Your task to perform on an android device: Open the calendar app, open the side menu, and click the "Day" option Image 0: 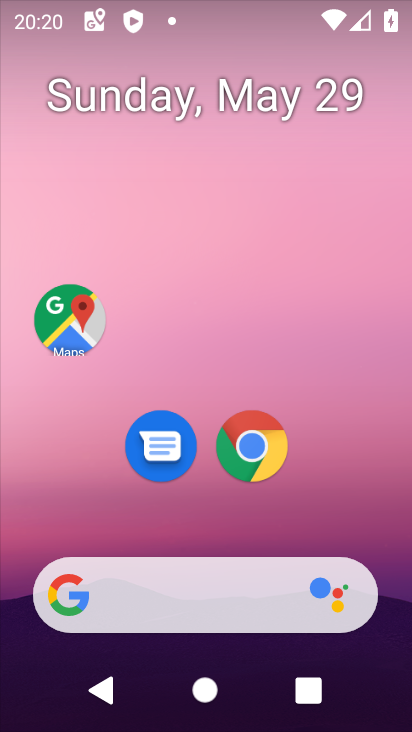
Step 0: drag from (188, 552) to (237, 72)
Your task to perform on an android device: Open the calendar app, open the side menu, and click the "Day" option Image 1: 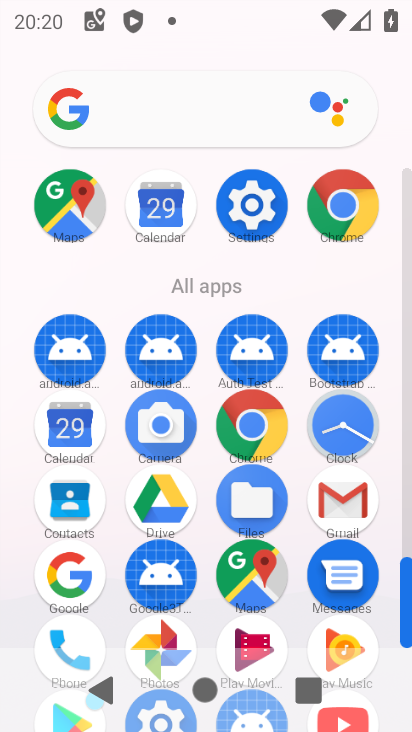
Step 1: click (74, 441)
Your task to perform on an android device: Open the calendar app, open the side menu, and click the "Day" option Image 2: 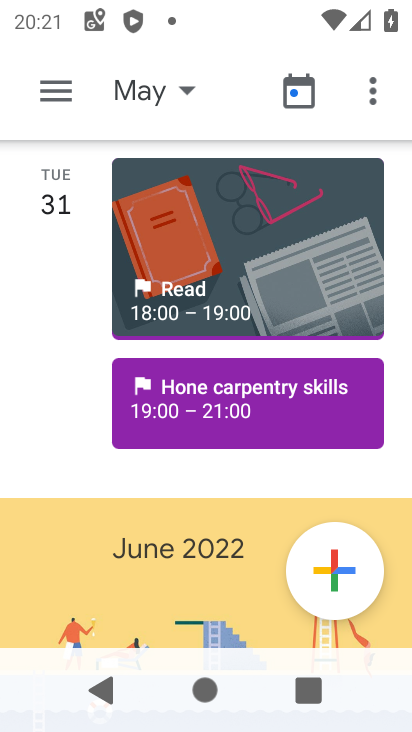
Step 2: click (51, 89)
Your task to perform on an android device: Open the calendar app, open the side menu, and click the "Day" option Image 3: 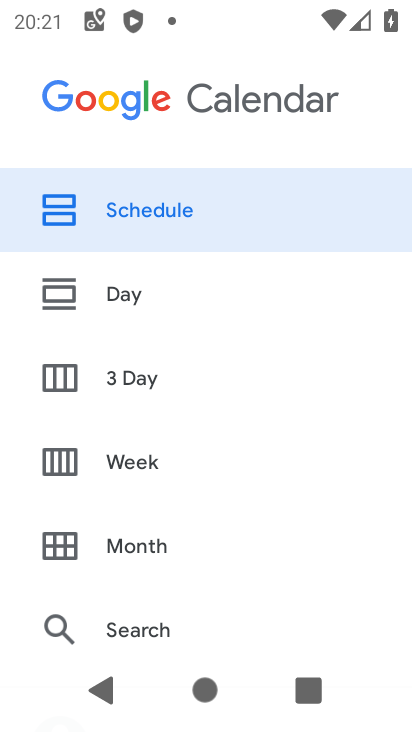
Step 3: click (140, 300)
Your task to perform on an android device: Open the calendar app, open the side menu, and click the "Day" option Image 4: 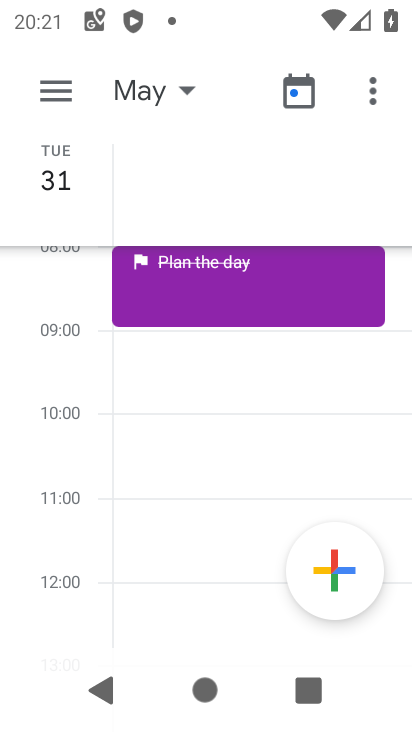
Step 4: task complete